Your task to perform on an android device: Clear all items from cart on bestbuy. Search for dell alienware on bestbuy, select the first entry, and add it to the cart. Image 0: 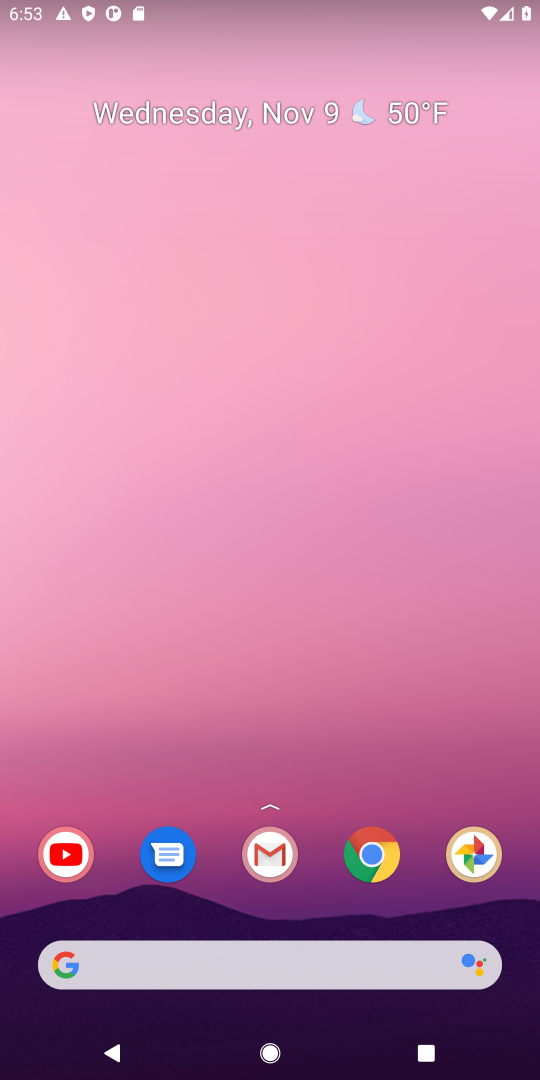
Step 0: click (233, 980)
Your task to perform on an android device: Clear all items from cart on bestbuy. Search for dell alienware on bestbuy, select the first entry, and add it to the cart. Image 1: 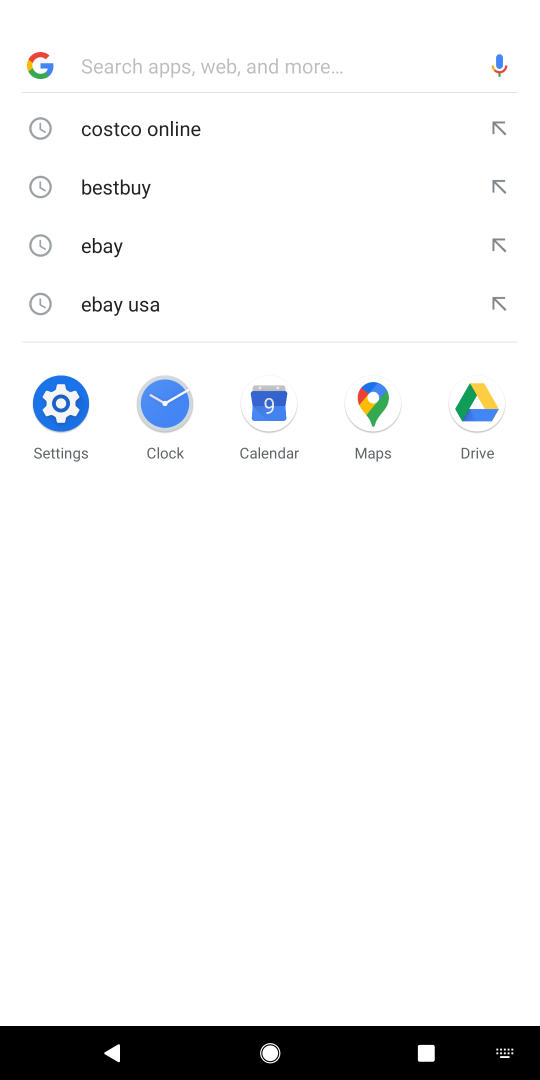
Step 1: type "bestbuy"
Your task to perform on an android device: Clear all items from cart on bestbuy. Search for dell alienware on bestbuy, select the first entry, and add it to the cart. Image 2: 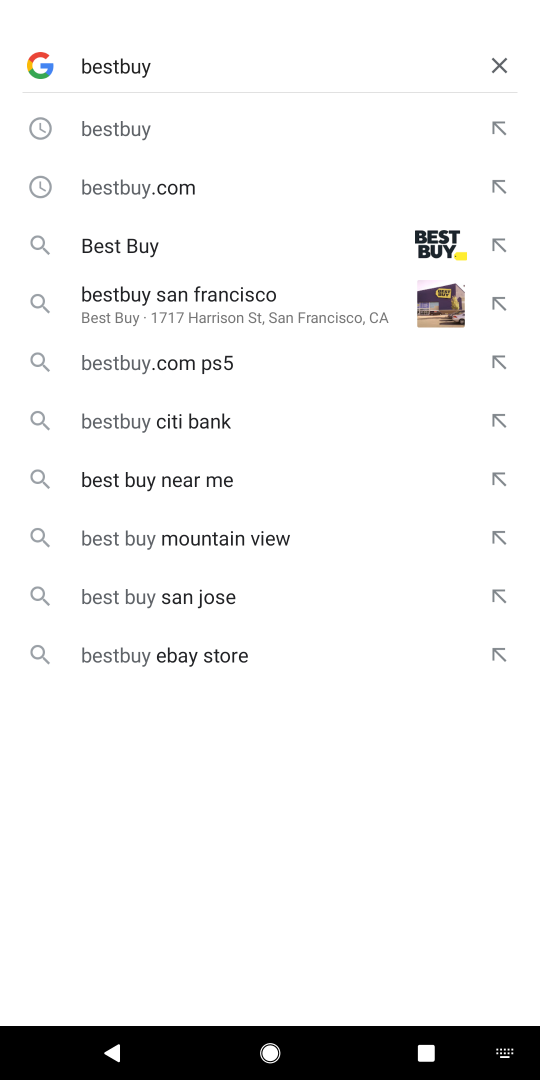
Step 2: click (238, 187)
Your task to perform on an android device: Clear all items from cart on bestbuy. Search for dell alienware on bestbuy, select the first entry, and add it to the cart. Image 3: 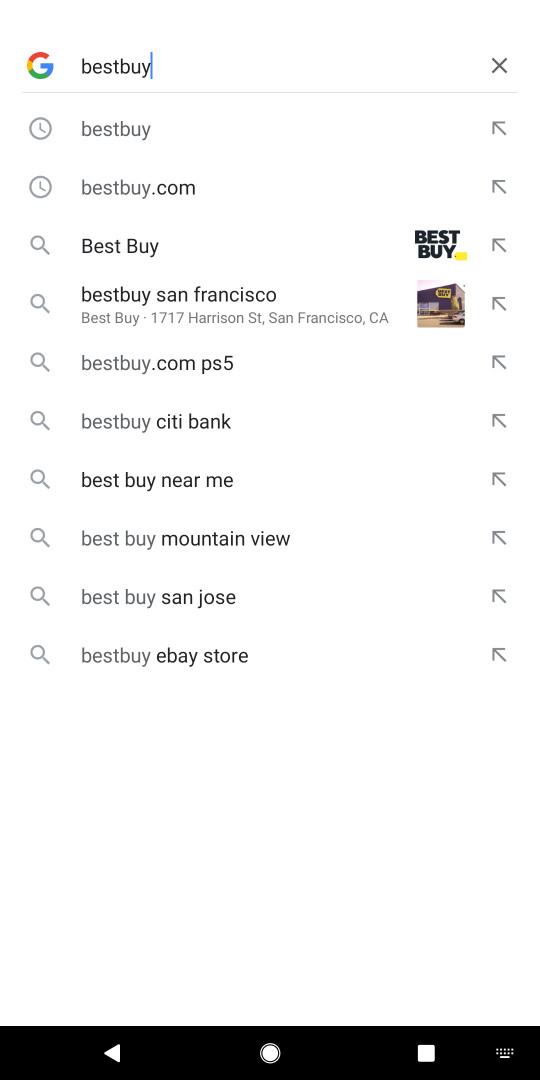
Step 3: click (238, 187)
Your task to perform on an android device: Clear all items from cart on bestbuy. Search for dell alienware on bestbuy, select the first entry, and add it to the cart. Image 4: 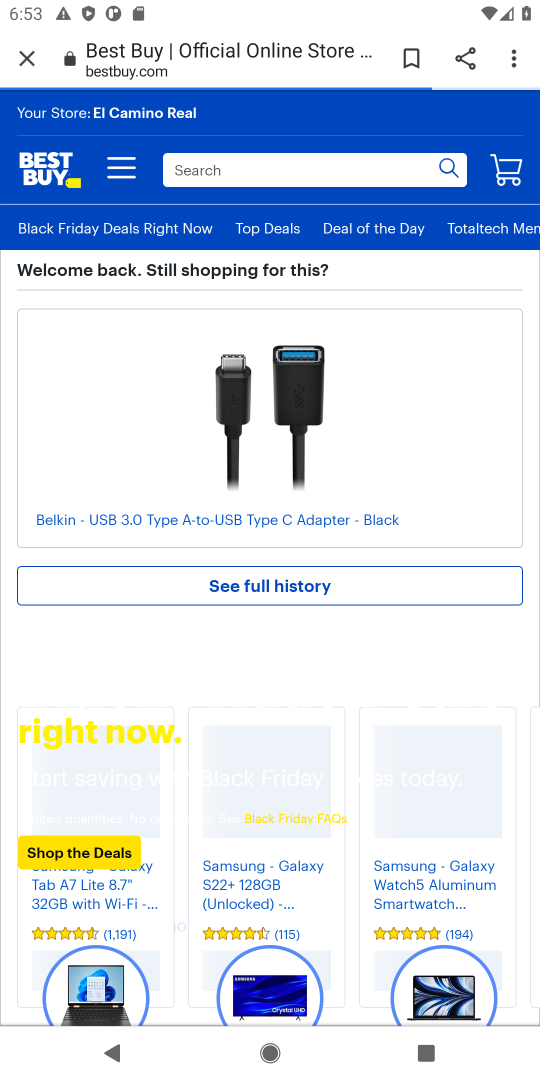
Step 4: task complete